Your task to perform on an android device: Open calendar and show me the third week of next month Image 0: 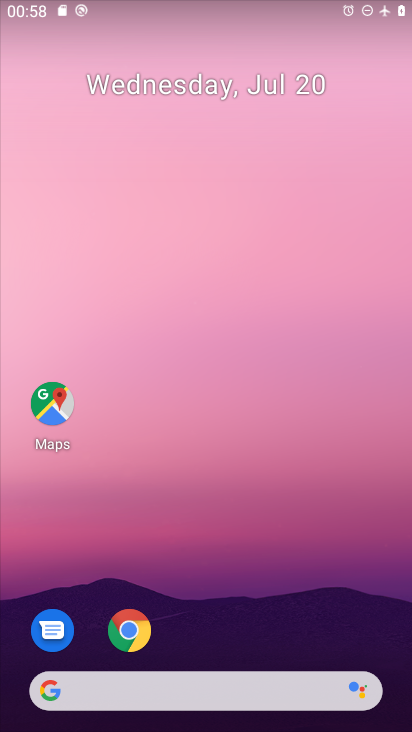
Step 0: drag from (189, 623) to (195, 146)
Your task to perform on an android device: Open calendar and show me the third week of next month Image 1: 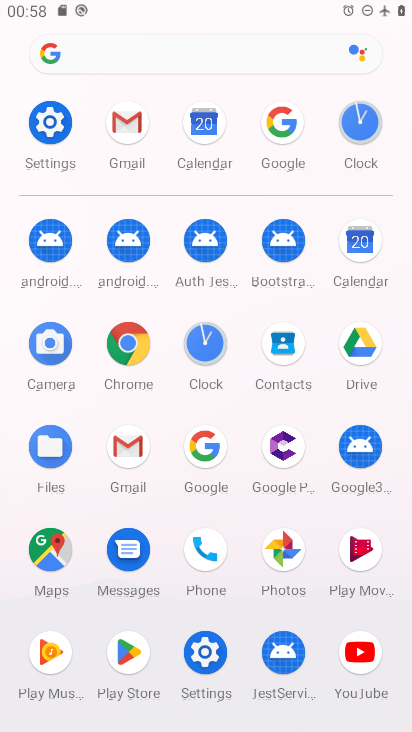
Step 1: click (358, 249)
Your task to perform on an android device: Open calendar and show me the third week of next month Image 2: 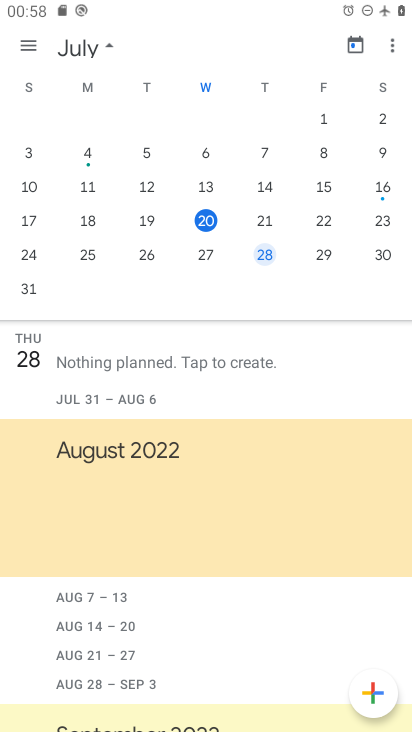
Step 2: drag from (324, 189) to (20, 186)
Your task to perform on an android device: Open calendar and show me the third week of next month Image 3: 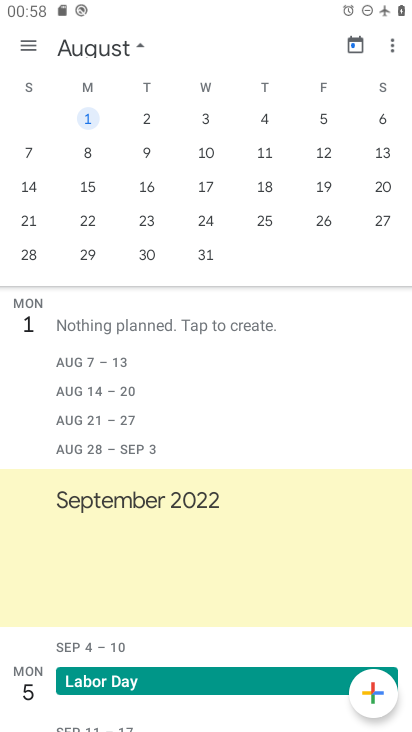
Step 3: click (31, 187)
Your task to perform on an android device: Open calendar and show me the third week of next month Image 4: 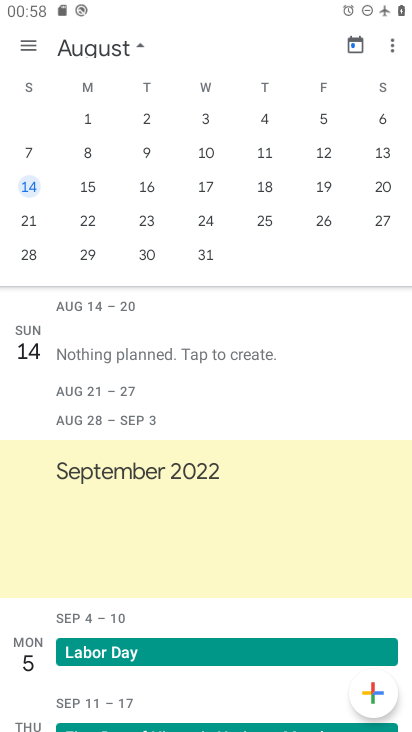
Step 4: task complete